Your task to perform on an android device: turn notification dots off Image 0: 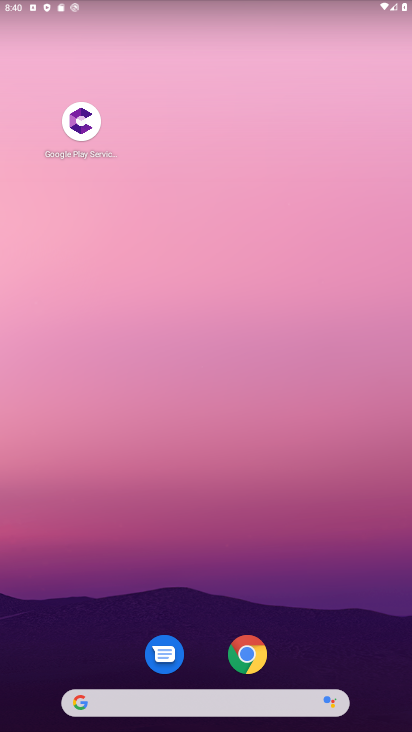
Step 0: drag from (196, 672) to (155, 35)
Your task to perform on an android device: turn notification dots off Image 1: 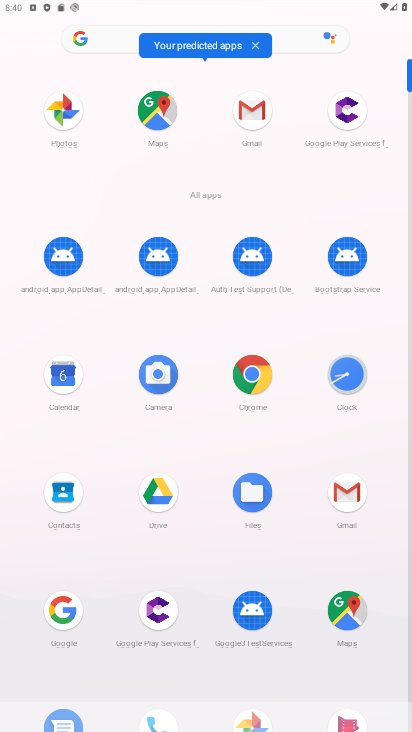
Step 1: drag from (200, 165) to (210, 650)
Your task to perform on an android device: turn notification dots off Image 2: 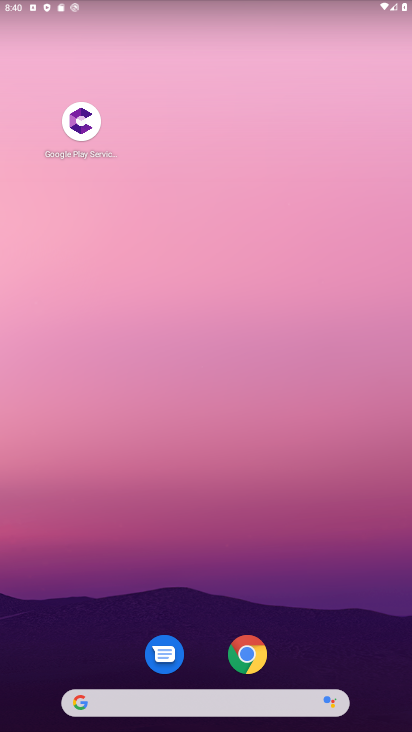
Step 2: drag from (192, 665) to (217, 0)
Your task to perform on an android device: turn notification dots off Image 3: 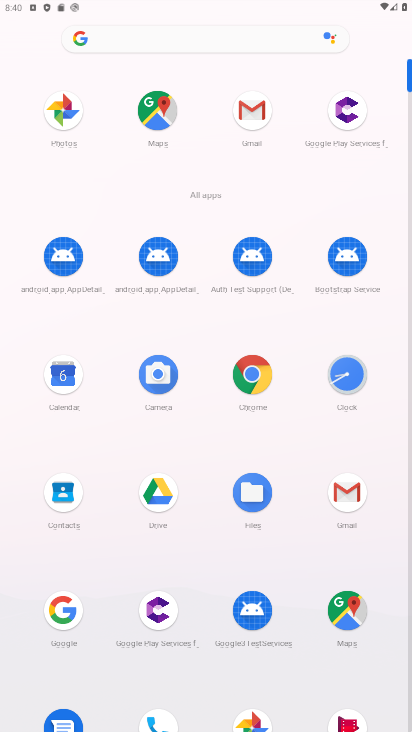
Step 3: drag from (191, 571) to (235, 156)
Your task to perform on an android device: turn notification dots off Image 4: 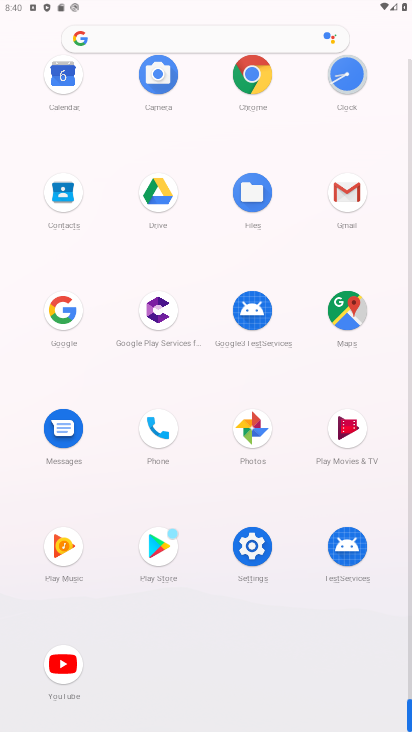
Step 4: drag from (199, 66) to (179, 683)
Your task to perform on an android device: turn notification dots off Image 5: 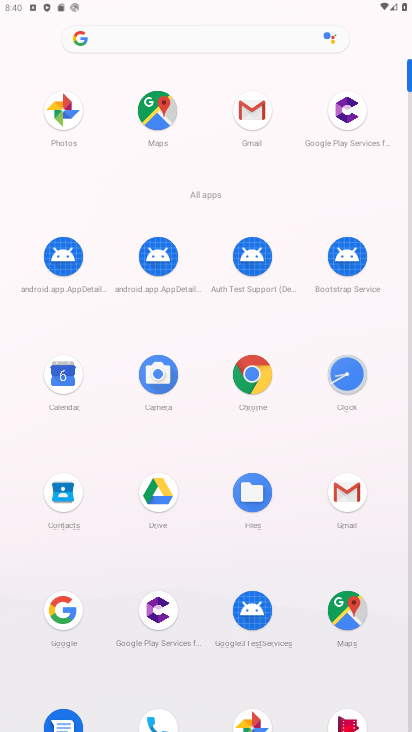
Step 5: drag from (199, 1) to (172, 567)
Your task to perform on an android device: turn notification dots off Image 6: 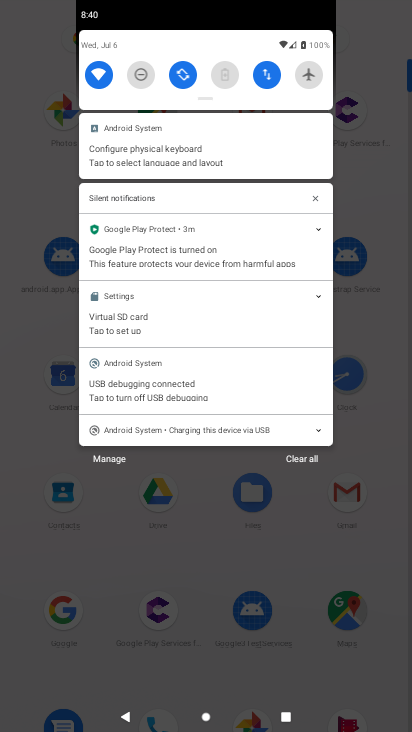
Step 6: drag from (235, 47) to (247, 639)
Your task to perform on an android device: turn notification dots off Image 7: 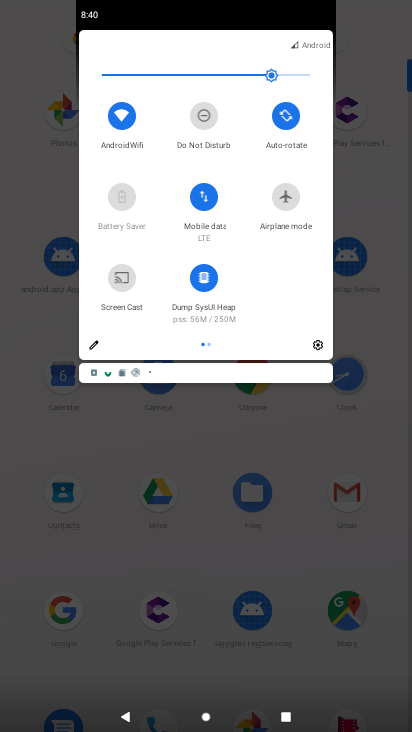
Step 7: click (317, 342)
Your task to perform on an android device: turn notification dots off Image 8: 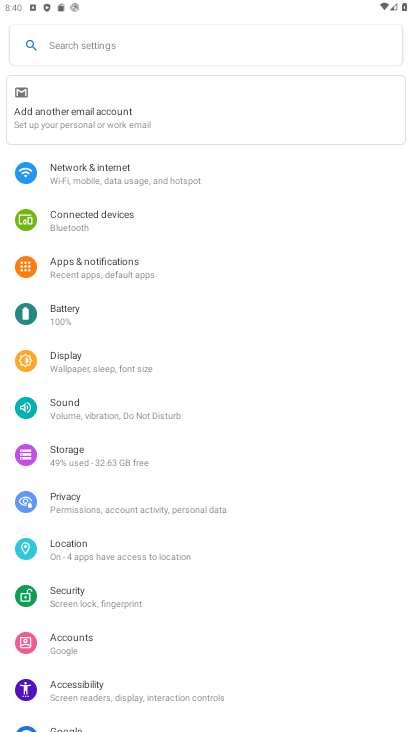
Step 8: click (90, 257)
Your task to perform on an android device: turn notification dots off Image 9: 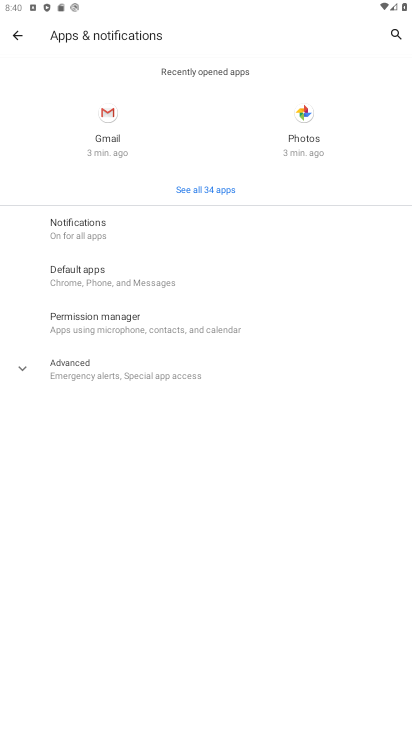
Step 9: click (116, 220)
Your task to perform on an android device: turn notification dots off Image 10: 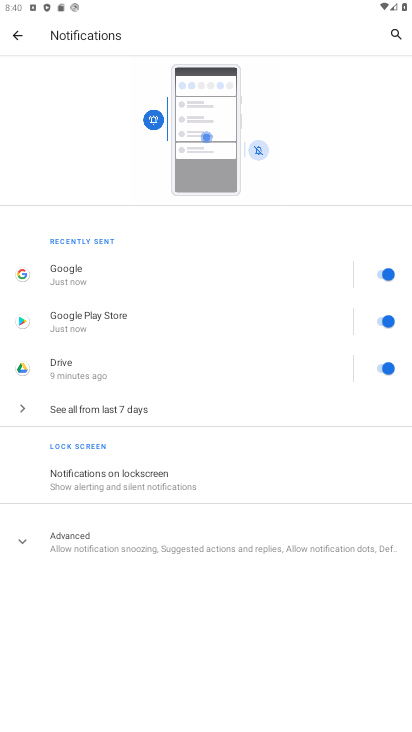
Step 10: click (149, 544)
Your task to perform on an android device: turn notification dots off Image 11: 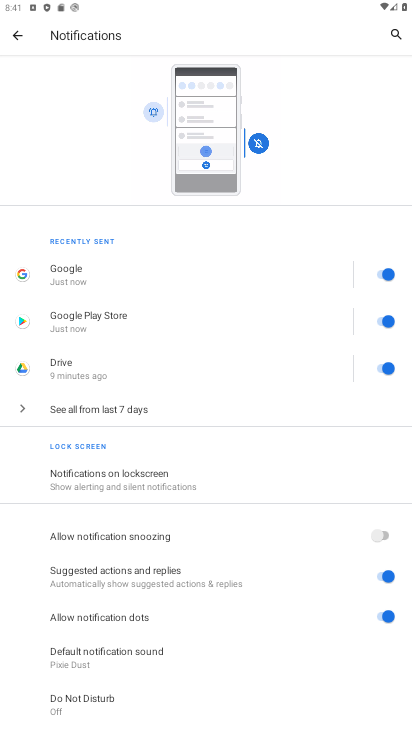
Step 11: click (385, 614)
Your task to perform on an android device: turn notification dots off Image 12: 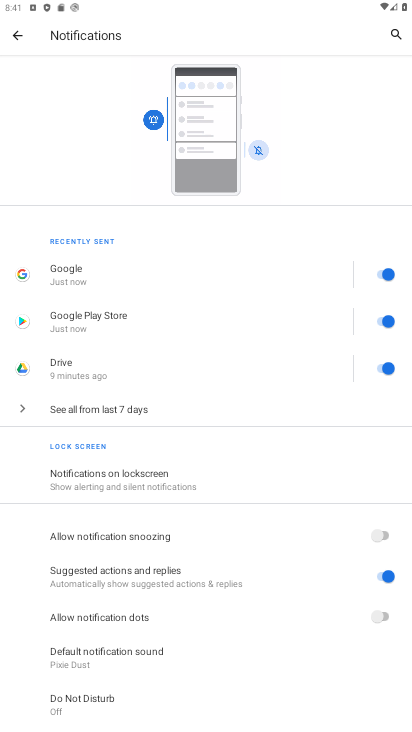
Step 12: task complete